Your task to perform on an android device: see creations saved in the google photos Image 0: 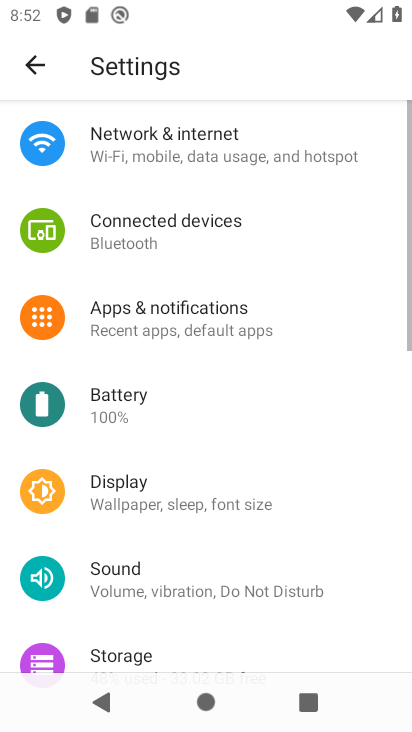
Step 0: press home button
Your task to perform on an android device: see creations saved in the google photos Image 1: 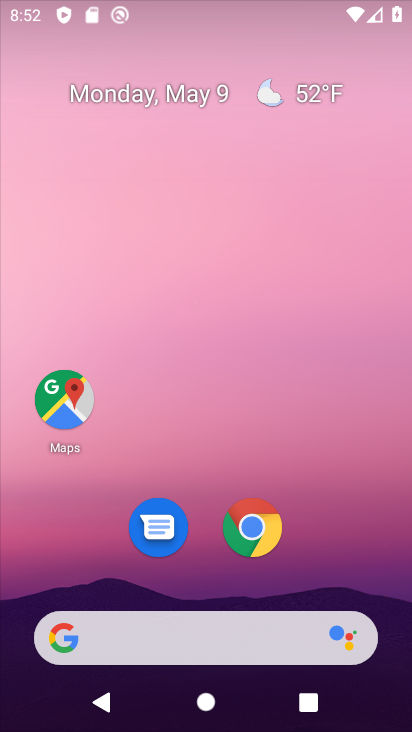
Step 1: drag from (356, 564) to (358, 231)
Your task to perform on an android device: see creations saved in the google photos Image 2: 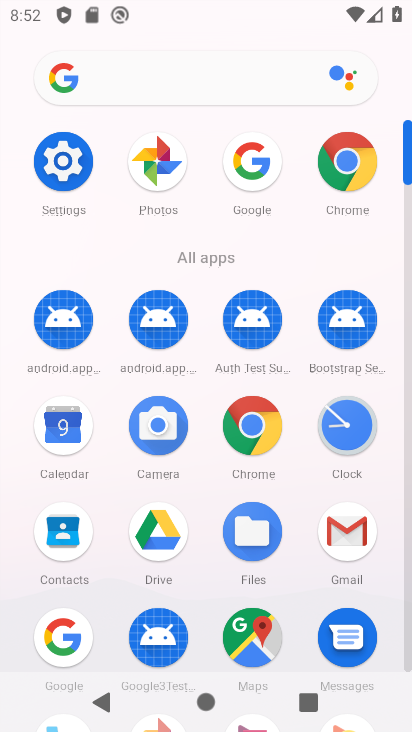
Step 2: drag from (305, 604) to (298, 313)
Your task to perform on an android device: see creations saved in the google photos Image 3: 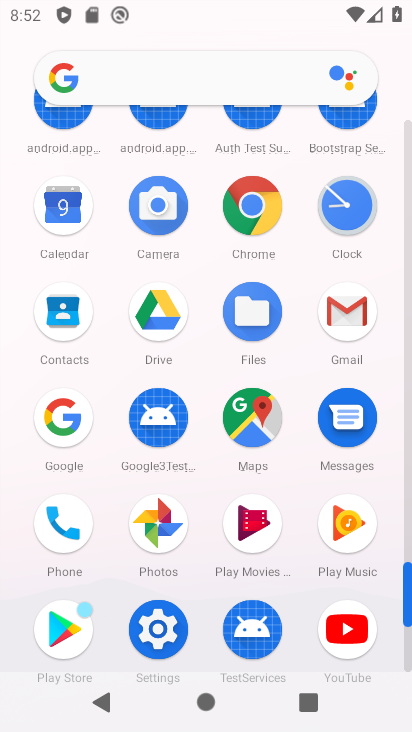
Step 3: click (173, 532)
Your task to perform on an android device: see creations saved in the google photos Image 4: 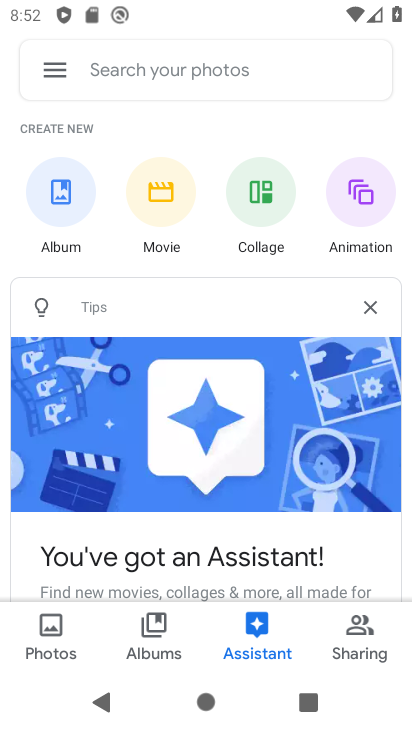
Step 4: click (217, 81)
Your task to perform on an android device: see creations saved in the google photos Image 5: 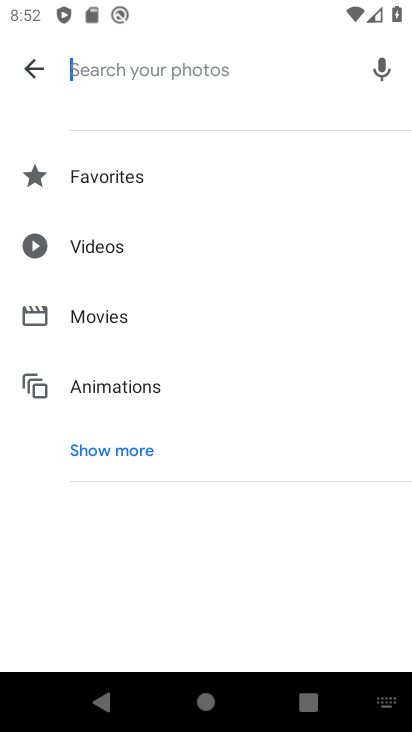
Step 5: type "creations"
Your task to perform on an android device: see creations saved in the google photos Image 6: 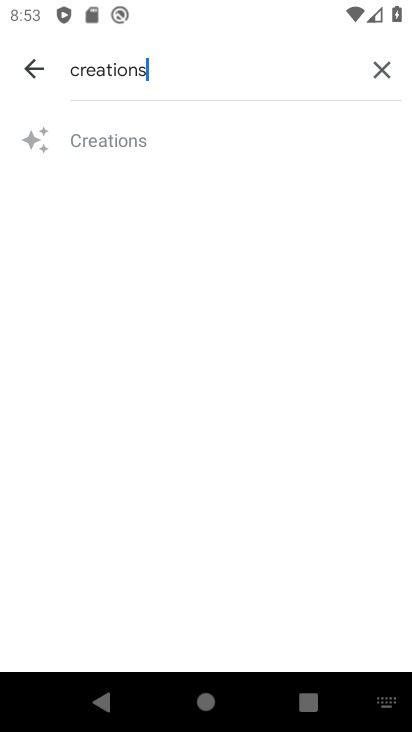
Step 6: click (126, 143)
Your task to perform on an android device: see creations saved in the google photos Image 7: 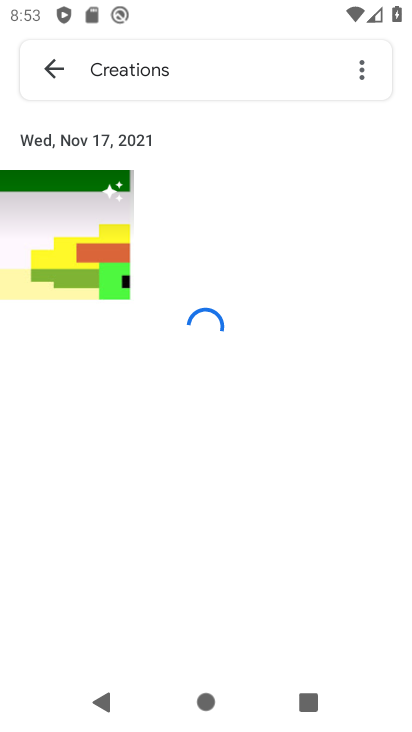
Step 7: task complete